Your task to perform on an android device: Empty the shopping cart on costco. Image 0: 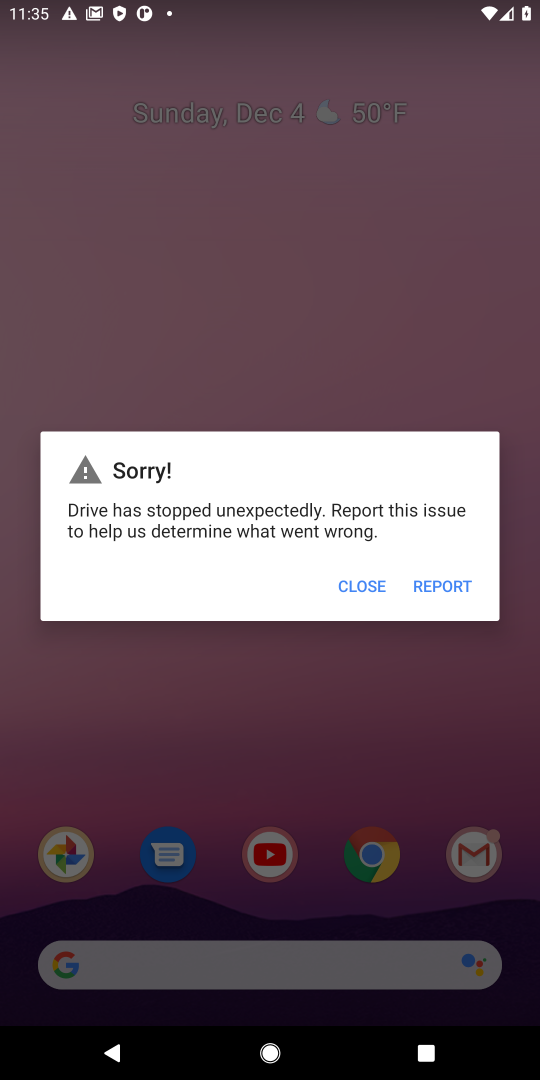
Step 0: press home button
Your task to perform on an android device: Empty the shopping cart on costco. Image 1: 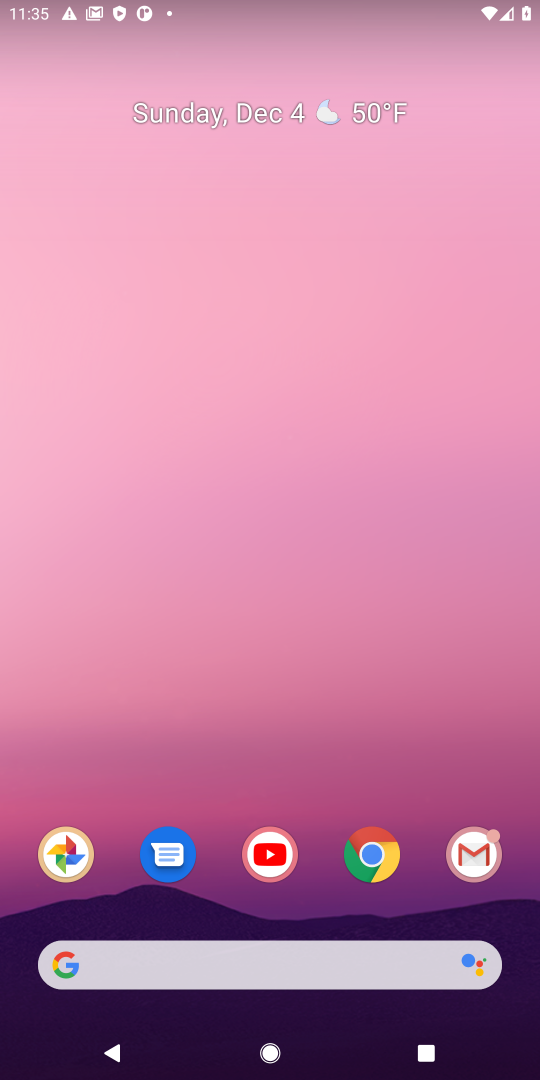
Step 1: click (189, 954)
Your task to perform on an android device: Empty the shopping cart on costco. Image 2: 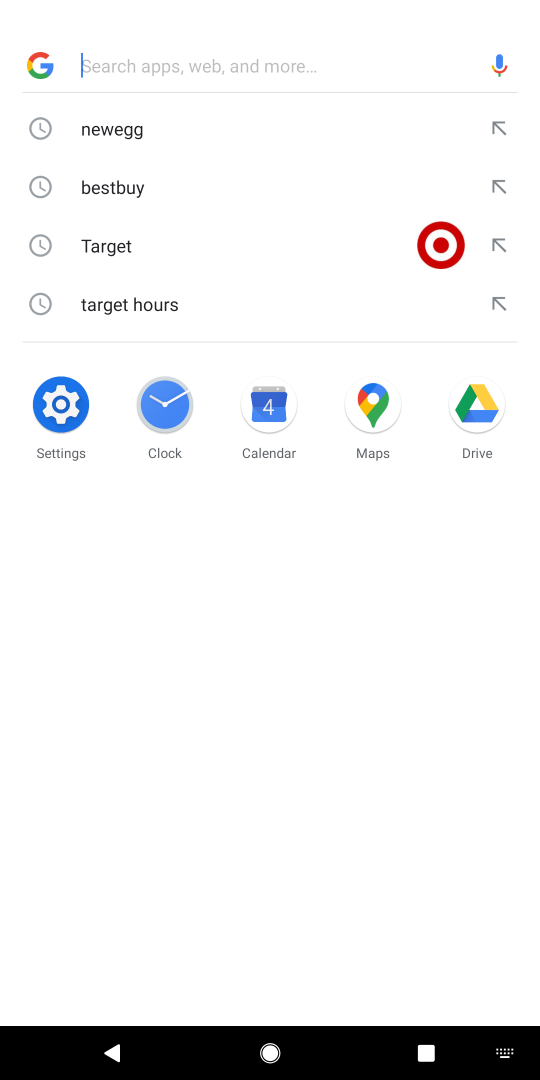
Step 2: type "costco.com"
Your task to perform on an android device: Empty the shopping cart on costco. Image 3: 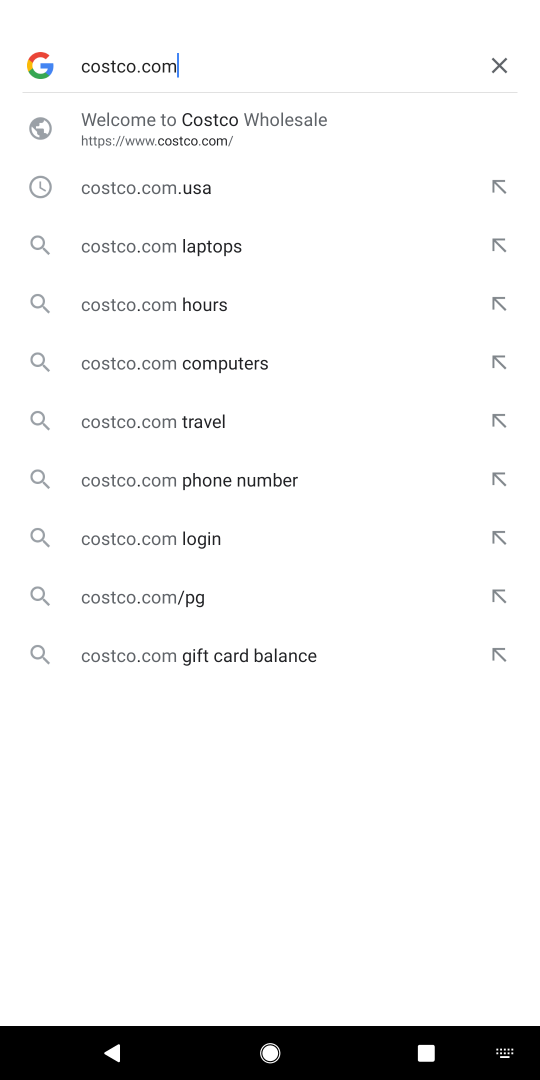
Step 3: click (246, 116)
Your task to perform on an android device: Empty the shopping cart on costco. Image 4: 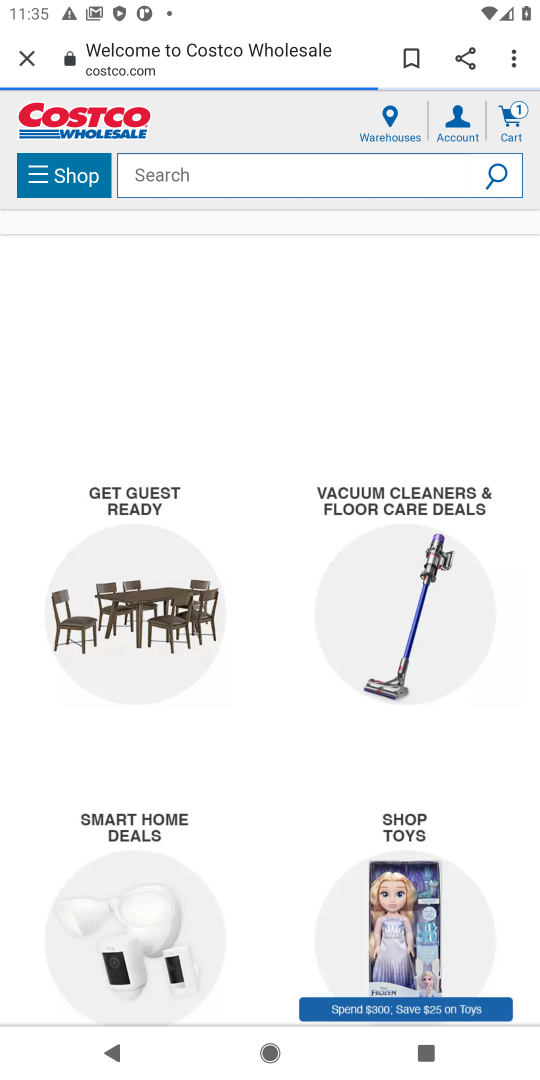
Step 4: click (201, 176)
Your task to perform on an android device: Empty the shopping cart on costco. Image 5: 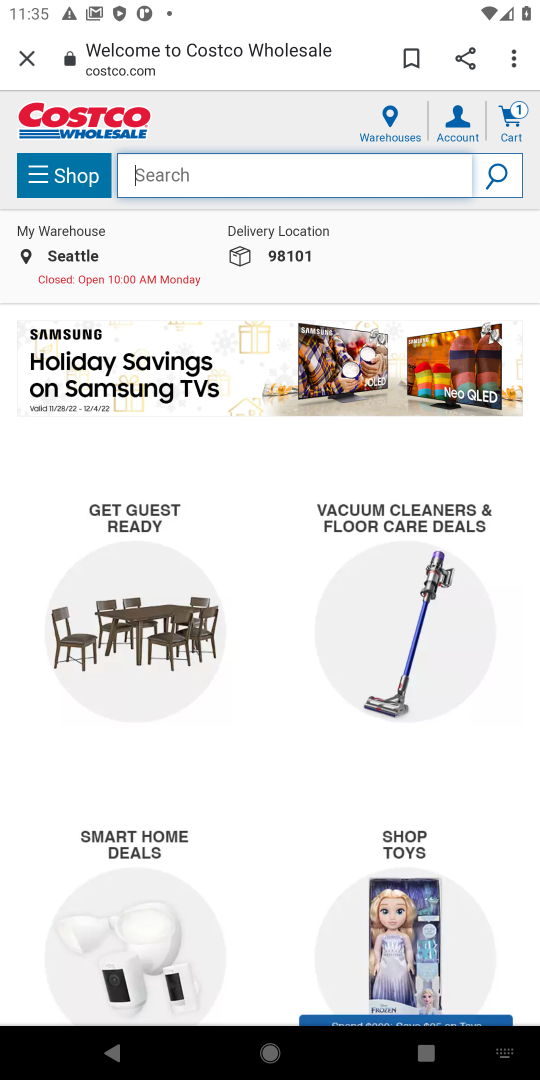
Step 5: click (521, 135)
Your task to perform on an android device: Empty the shopping cart on costco. Image 6: 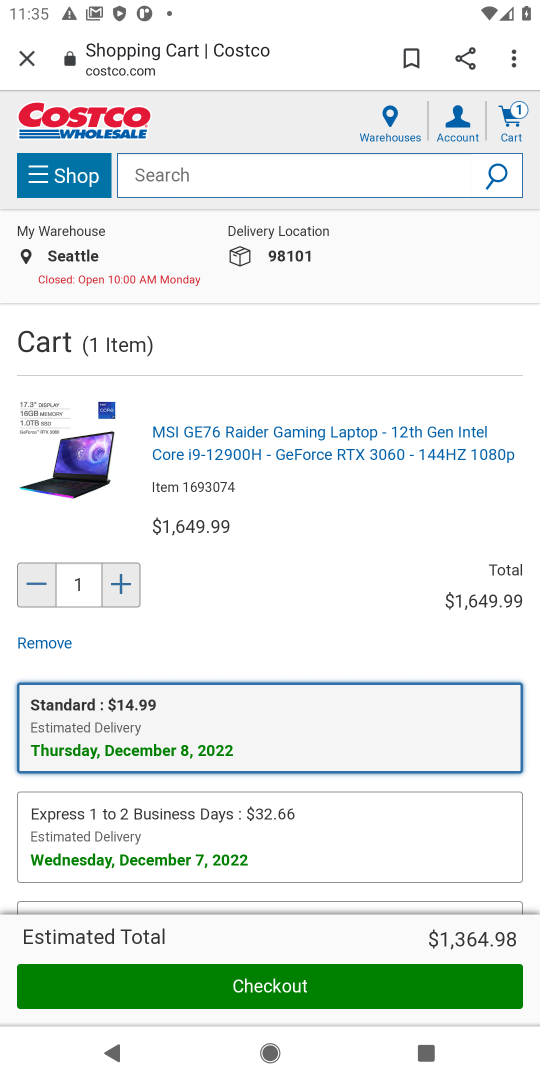
Step 6: click (37, 641)
Your task to perform on an android device: Empty the shopping cart on costco. Image 7: 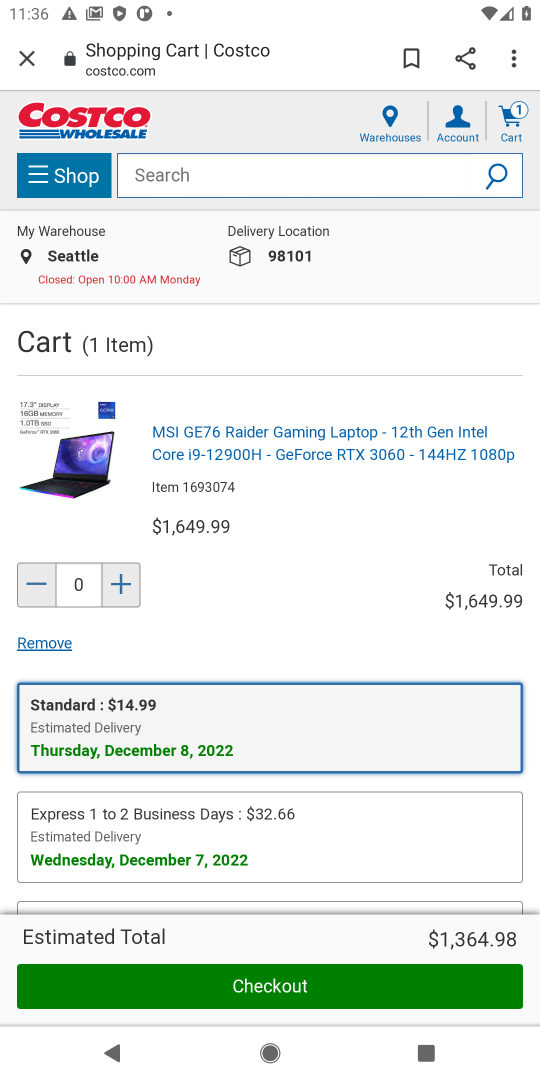
Step 7: task complete